Your task to perform on an android device: Open the web browser Image 0: 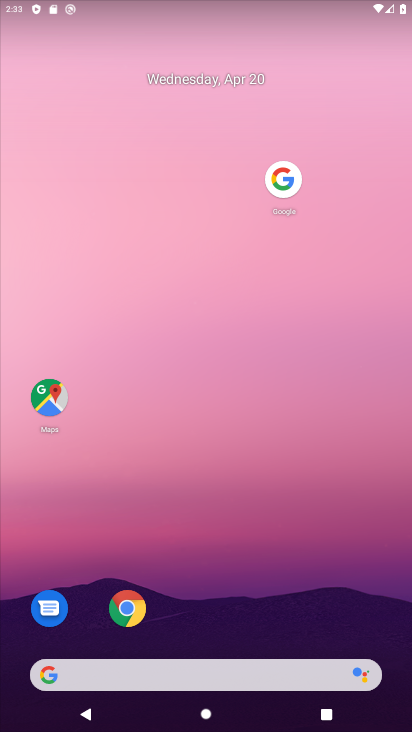
Step 0: drag from (251, 618) to (247, 180)
Your task to perform on an android device: Open the web browser Image 1: 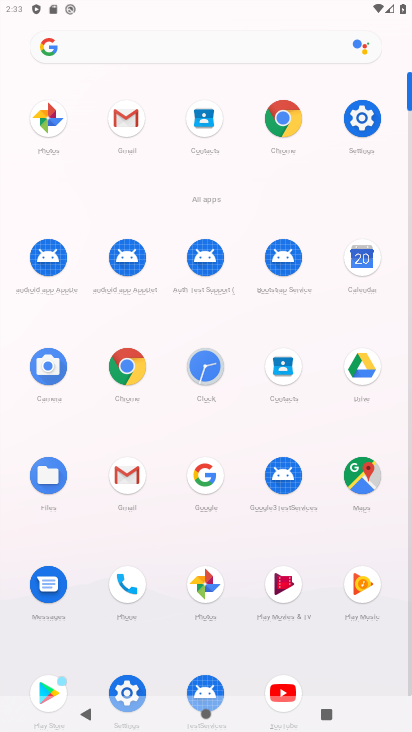
Step 1: click (132, 364)
Your task to perform on an android device: Open the web browser Image 2: 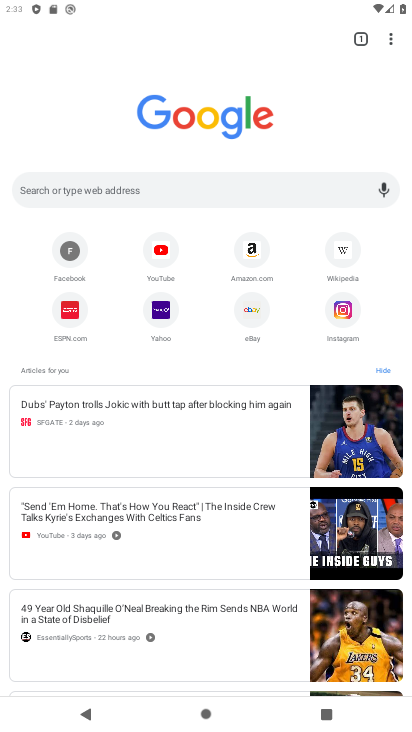
Step 2: task complete